Your task to perform on an android device: Go to network settings Image 0: 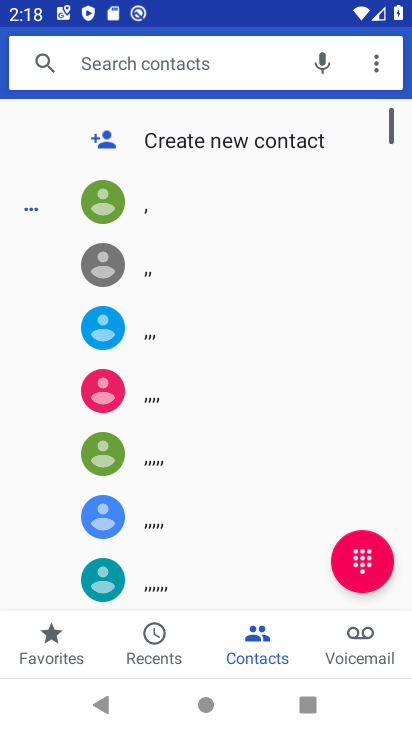
Step 0: press home button
Your task to perform on an android device: Go to network settings Image 1: 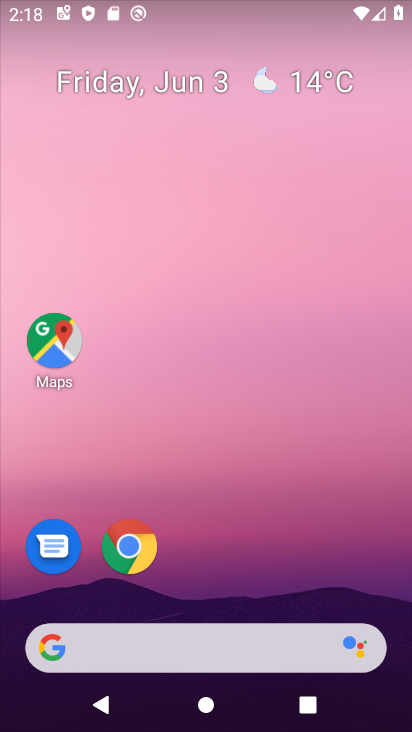
Step 1: drag from (286, 555) to (293, 55)
Your task to perform on an android device: Go to network settings Image 2: 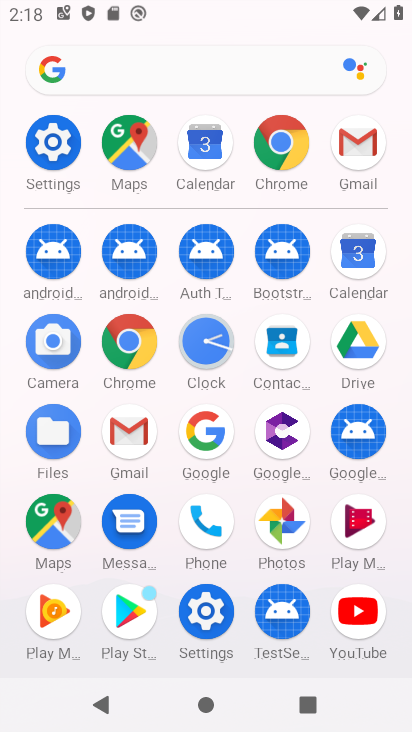
Step 2: click (74, 141)
Your task to perform on an android device: Go to network settings Image 3: 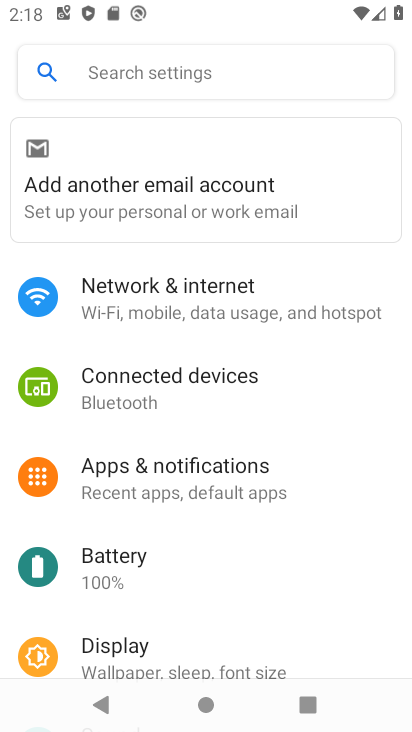
Step 3: click (129, 306)
Your task to perform on an android device: Go to network settings Image 4: 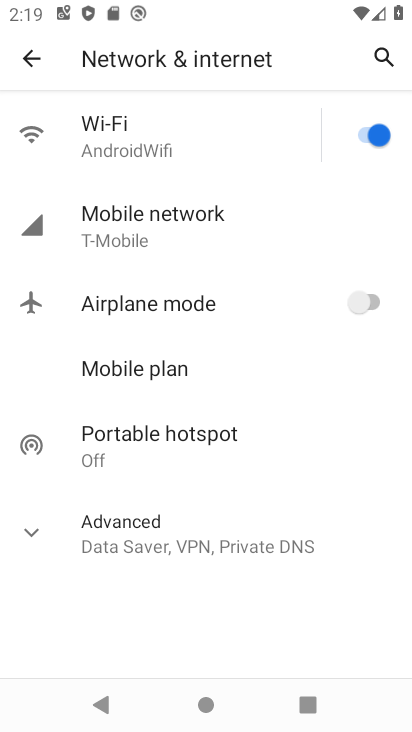
Step 4: task complete